Your task to perform on an android device: Set the phone to "Do not disturb". Image 0: 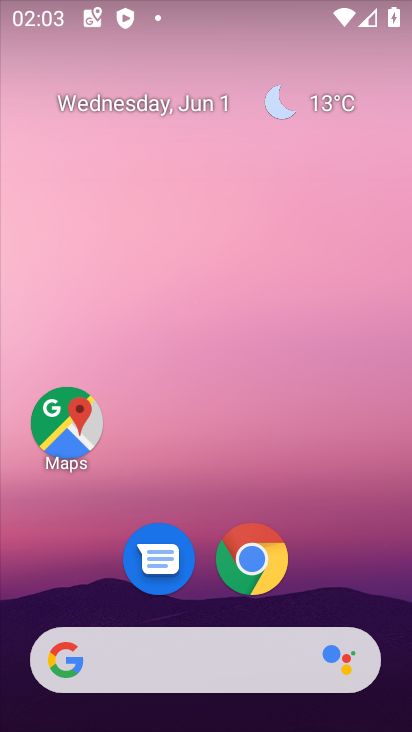
Step 0: drag from (381, 638) to (322, 167)
Your task to perform on an android device: Set the phone to "Do not disturb". Image 1: 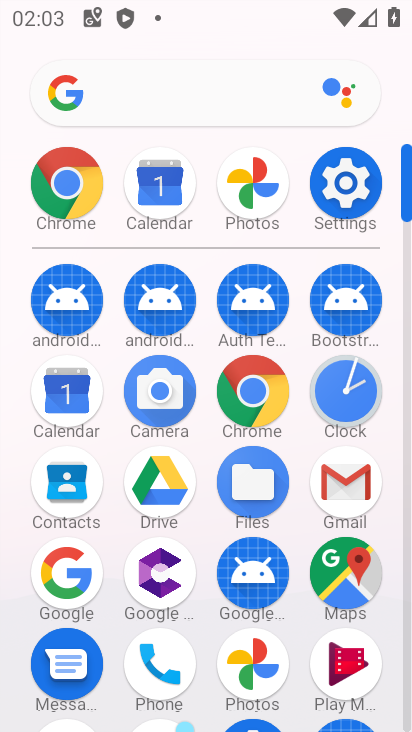
Step 1: click (357, 155)
Your task to perform on an android device: Set the phone to "Do not disturb". Image 2: 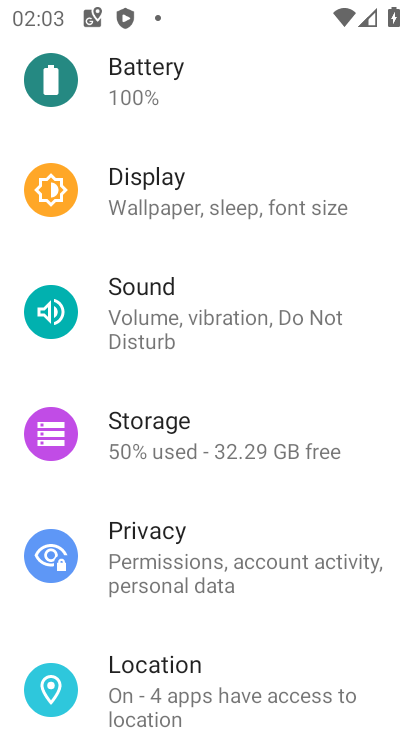
Step 2: click (127, 285)
Your task to perform on an android device: Set the phone to "Do not disturb". Image 3: 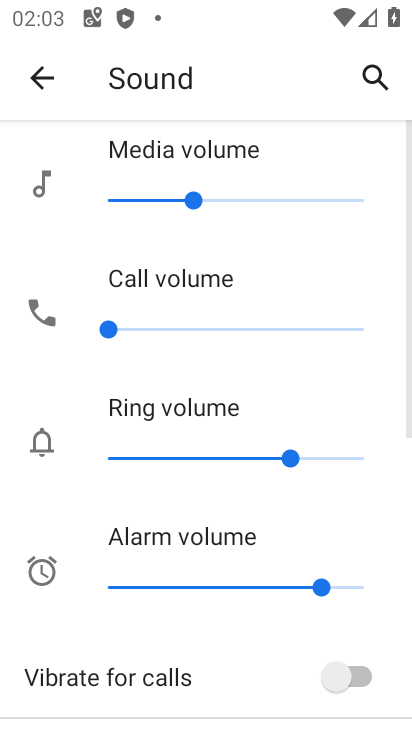
Step 3: drag from (215, 662) to (235, 185)
Your task to perform on an android device: Set the phone to "Do not disturb". Image 4: 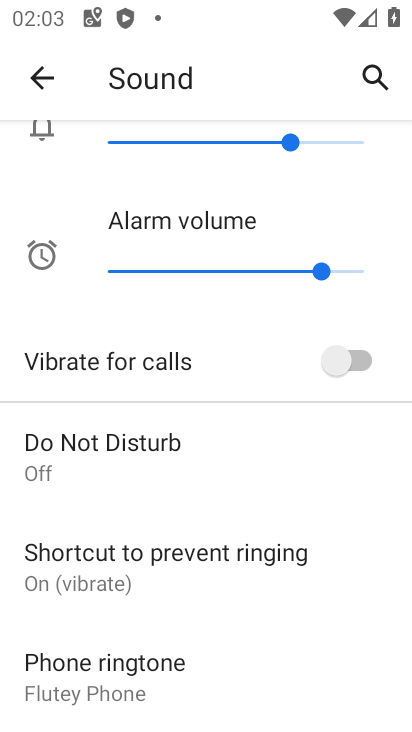
Step 4: click (114, 430)
Your task to perform on an android device: Set the phone to "Do not disturb". Image 5: 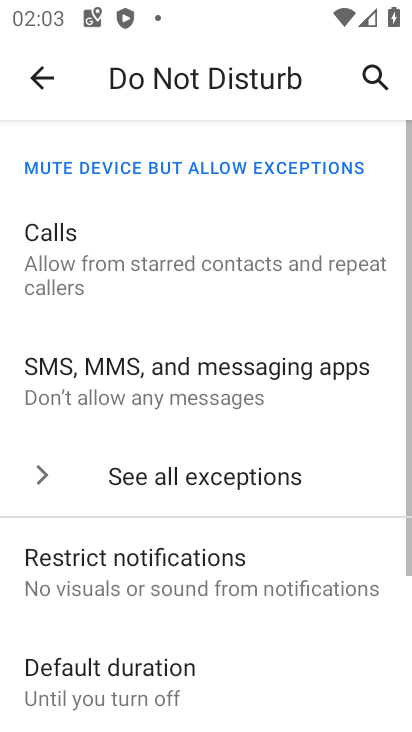
Step 5: drag from (229, 691) to (246, 250)
Your task to perform on an android device: Set the phone to "Do not disturb". Image 6: 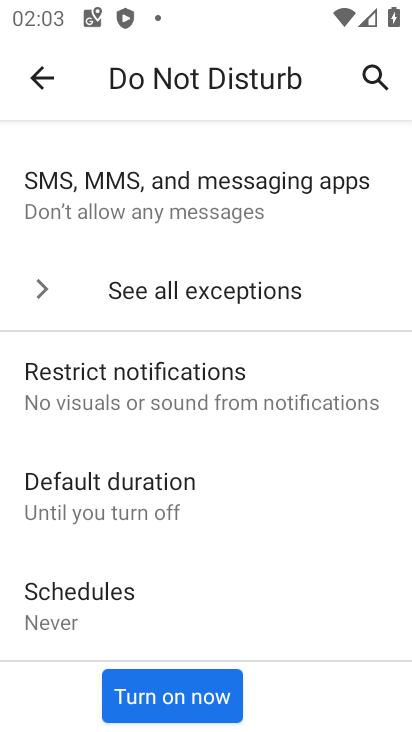
Step 6: click (180, 711)
Your task to perform on an android device: Set the phone to "Do not disturb". Image 7: 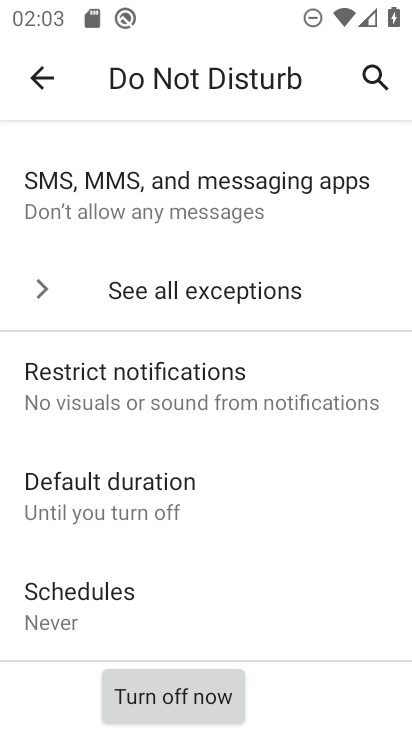
Step 7: task complete